Your task to perform on an android device: Toggle the flashlight Image 0: 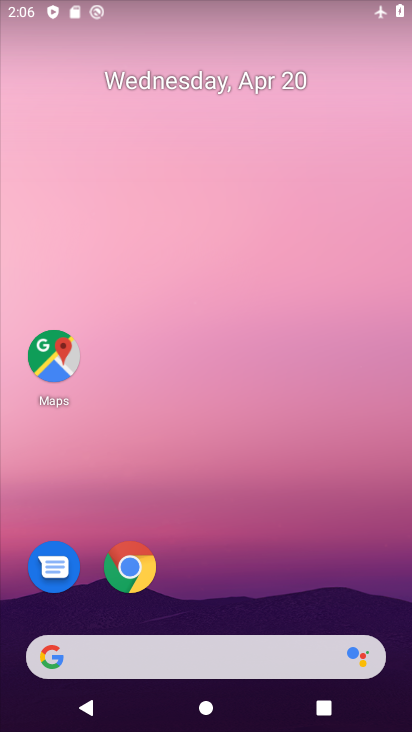
Step 0: drag from (178, 13) to (172, 515)
Your task to perform on an android device: Toggle the flashlight Image 1: 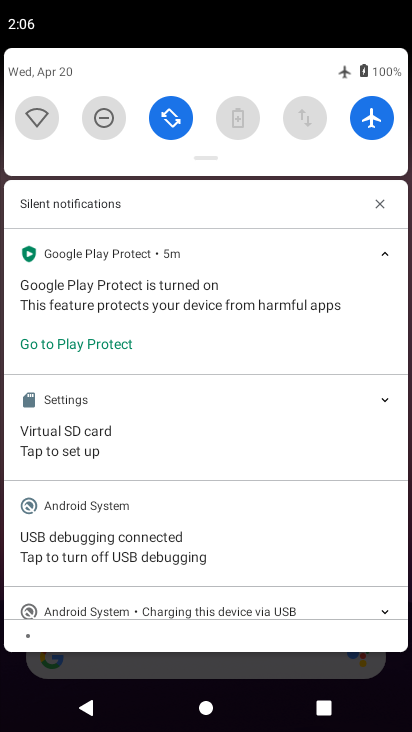
Step 1: task complete